Your task to perform on an android device: Go to ESPN.com Image 0: 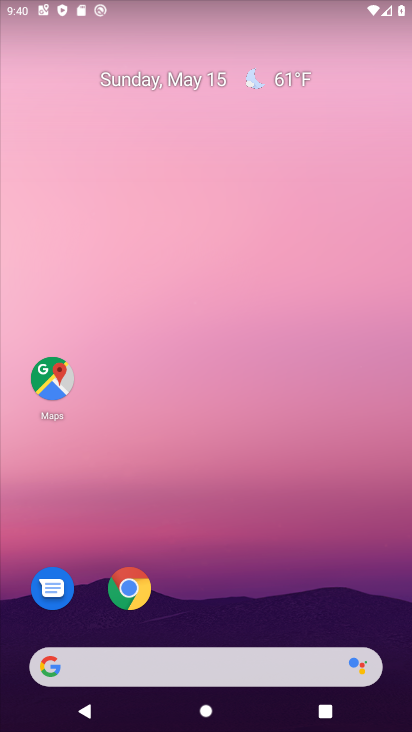
Step 0: click (133, 593)
Your task to perform on an android device: Go to ESPN.com Image 1: 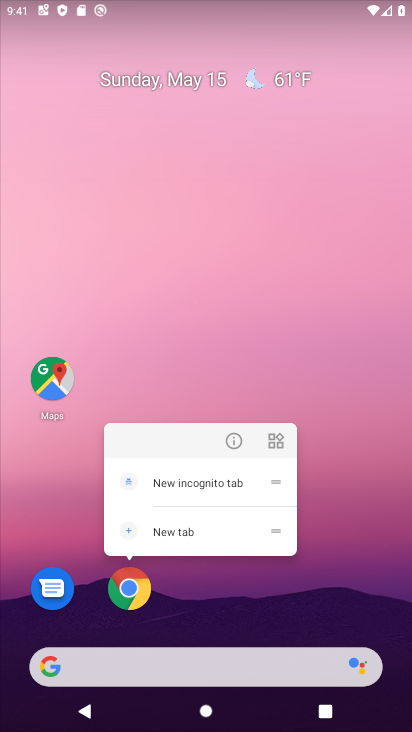
Step 1: click (133, 597)
Your task to perform on an android device: Go to ESPN.com Image 2: 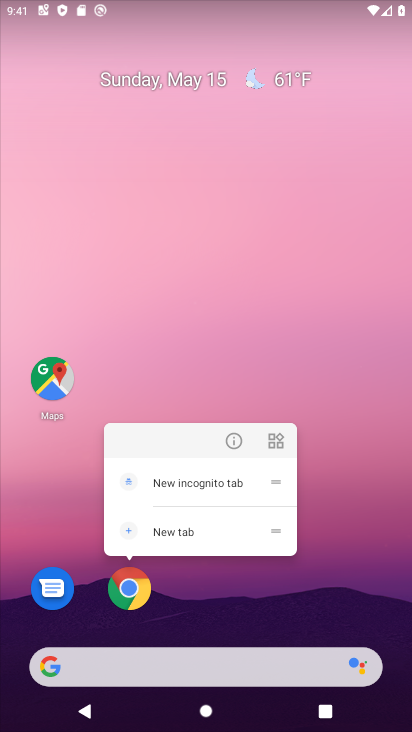
Step 2: click (150, 605)
Your task to perform on an android device: Go to ESPN.com Image 3: 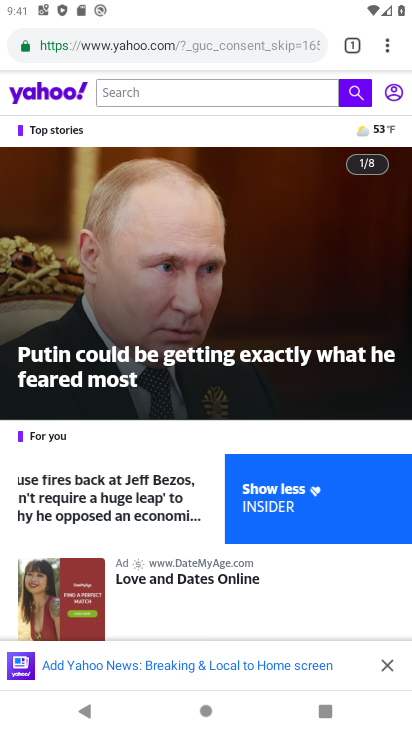
Step 3: click (177, 42)
Your task to perform on an android device: Go to ESPN.com Image 4: 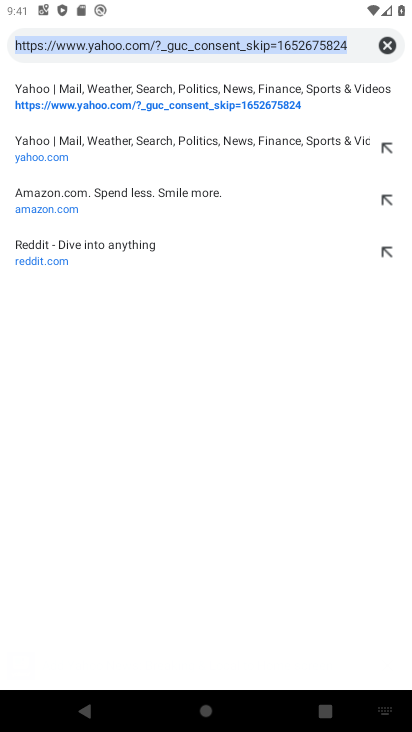
Step 4: type "ESPN.com"
Your task to perform on an android device: Go to ESPN.com Image 5: 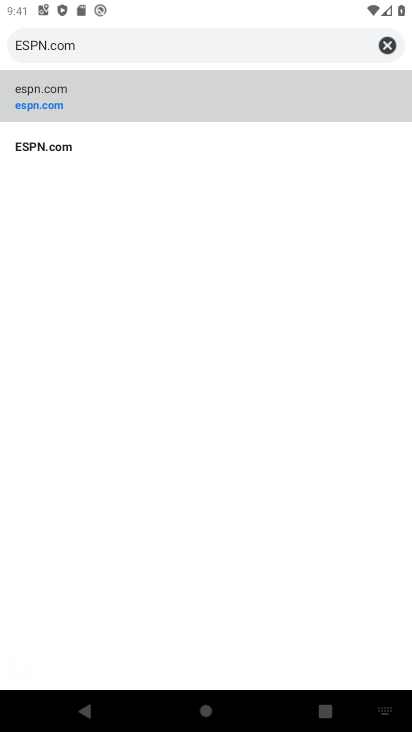
Step 5: click (83, 103)
Your task to perform on an android device: Go to ESPN.com Image 6: 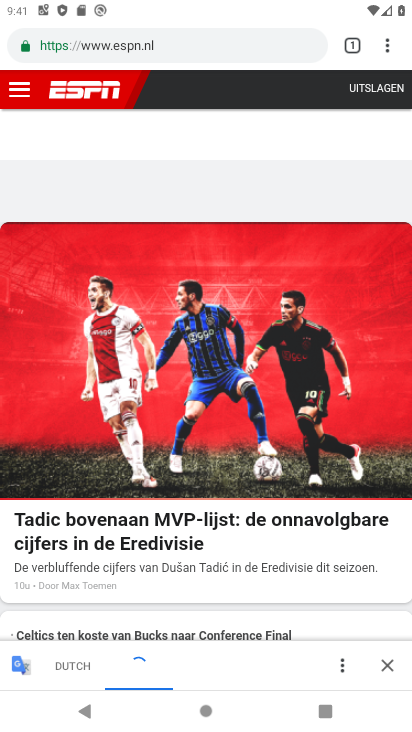
Step 6: task complete